Your task to perform on an android device: Show me recent news Image 0: 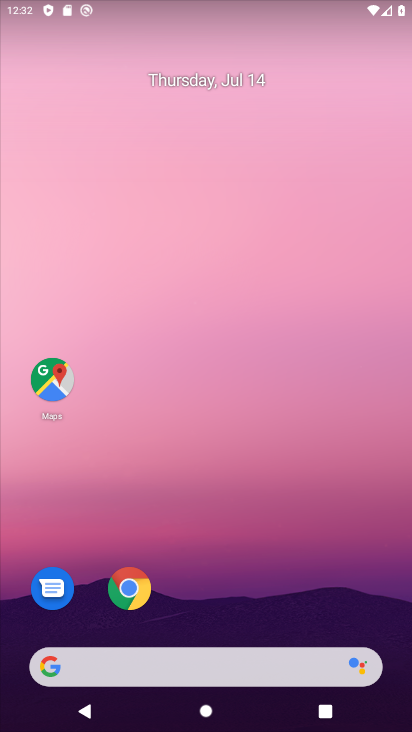
Step 0: drag from (318, 544) to (292, 197)
Your task to perform on an android device: Show me recent news Image 1: 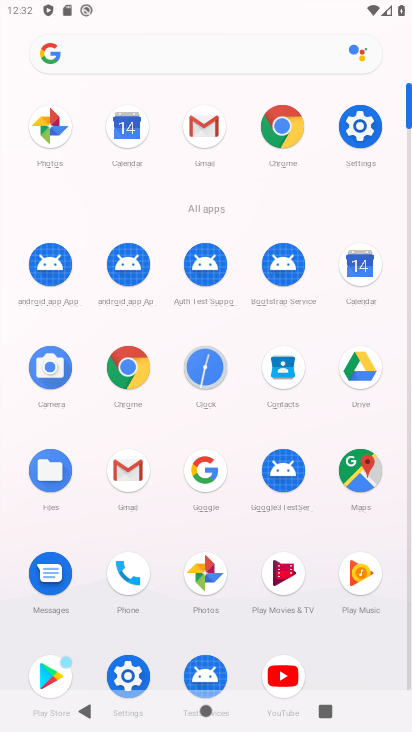
Step 1: click (280, 118)
Your task to perform on an android device: Show me recent news Image 2: 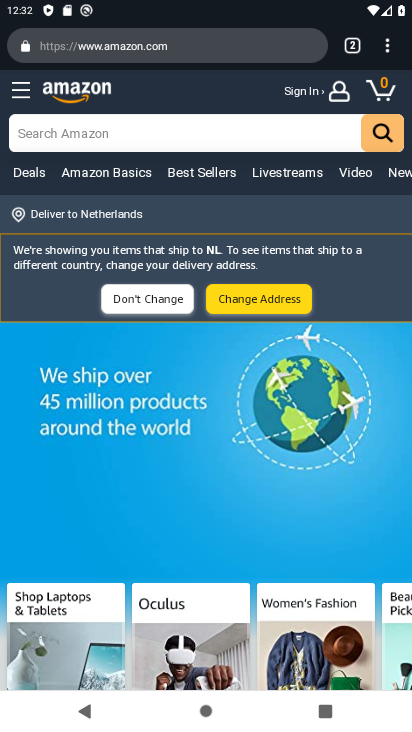
Step 2: click (390, 43)
Your task to perform on an android device: Show me recent news Image 3: 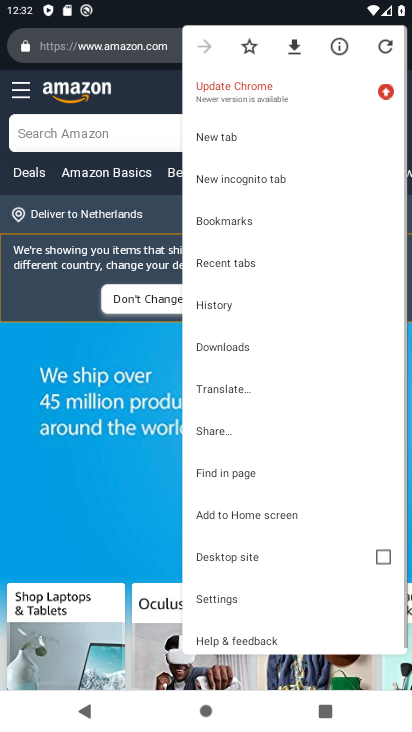
Step 3: click (233, 133)
Your task to perform on an android device: Show me recent news Image 4: 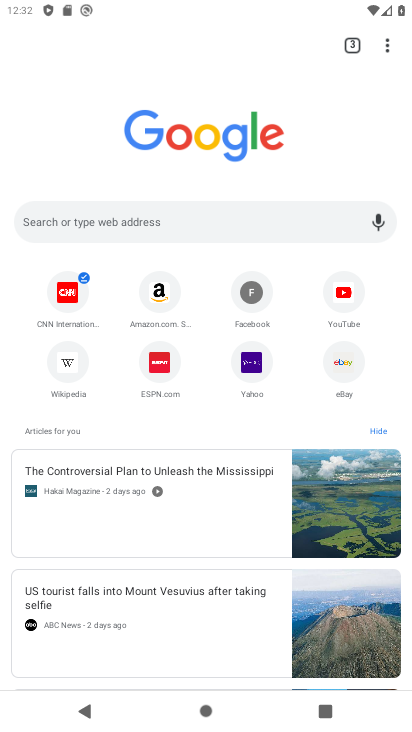
Step 4: click (182, 213)
Your task to perform on an android device: Show me recent news Image 5: 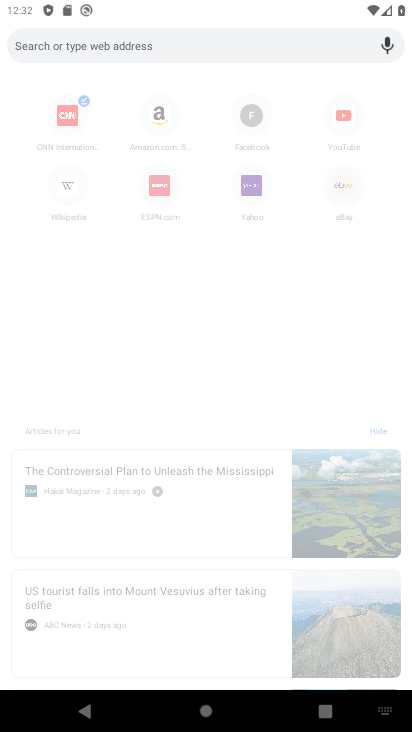
Step 5: type "Show me recent news "
Your task to perform on an android device: Show me recent news Image 6: 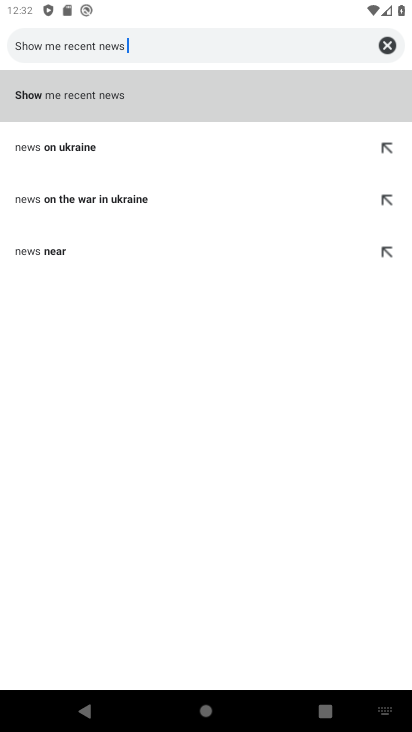
Step 6: click (124, 106)
Your task to perform on an android device: Show me recent news Image 7: 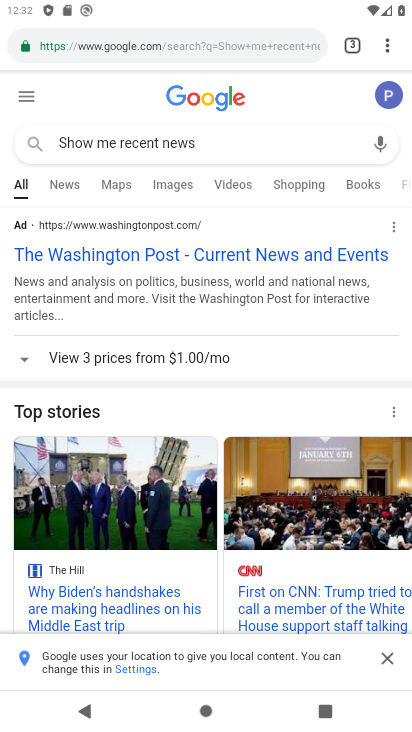
Step 7: task complete